Your task to perform on an android device: toggle translation in the chrome app Image 0: 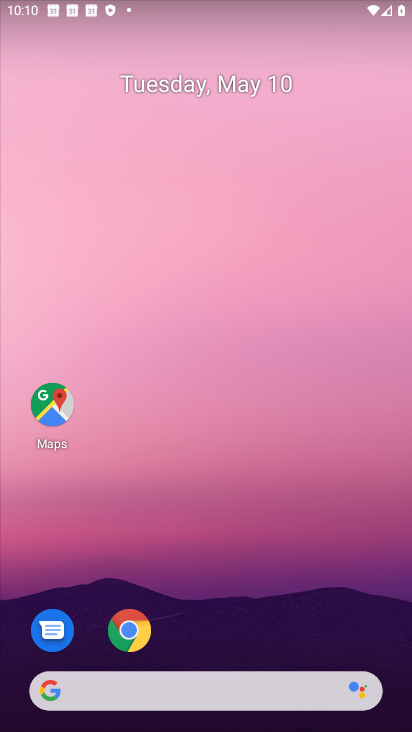
Step 0: click (132, 630)
Your task to perform on an android device: toggle translation in the chrome app Image 1: 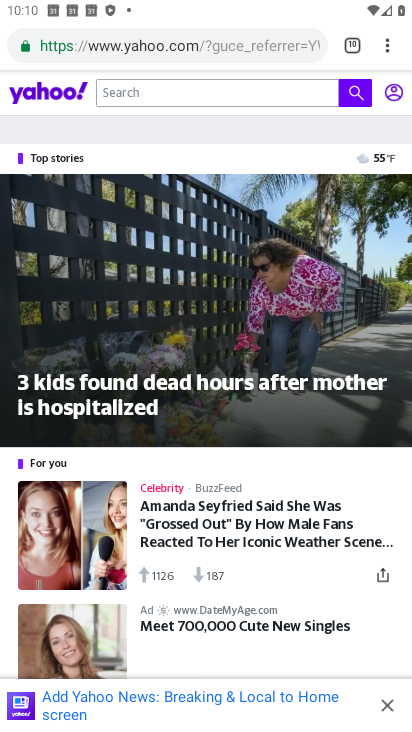
Step 1: click (384, 51)
Your task to perform on an android device: toggle translation in the chrome app Image 2: 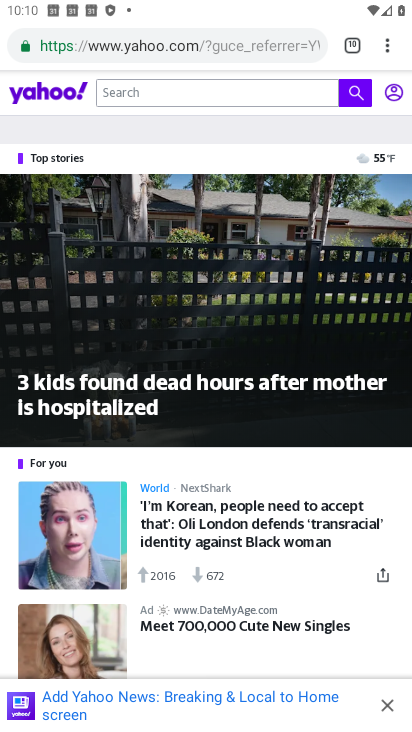
Step 2: click (392, 43)
Your task to perform on an android device: toggle translation in the chrome app Image 3: 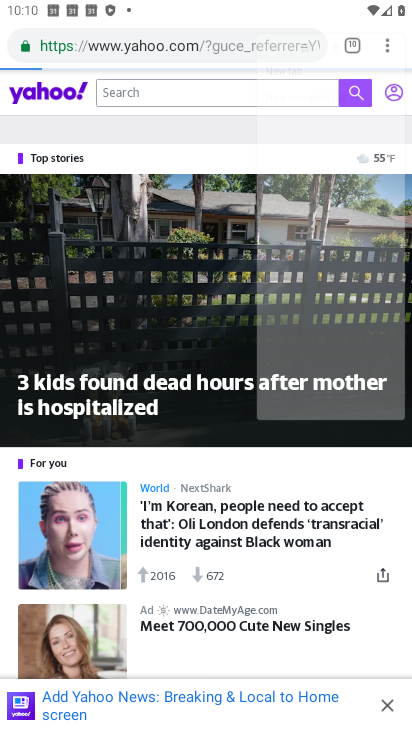
Step 3: click (392, 43)
Your task to perform on an android device: toggle translation in the chrome app Image 4: 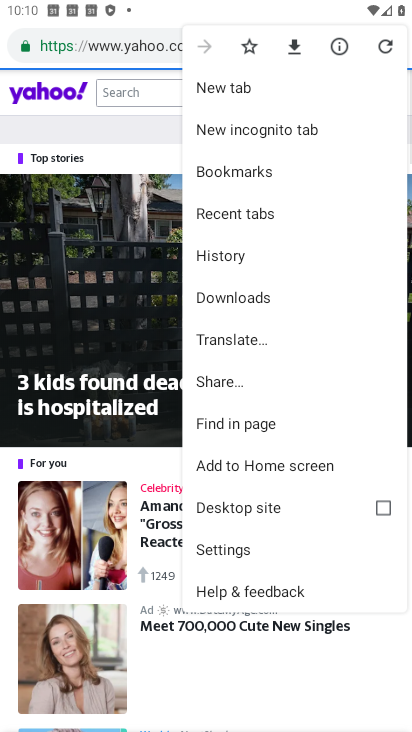
Step 4: click (392, 43)
Your task to perform on an android device: toggle translation in the chrome app Image 5: 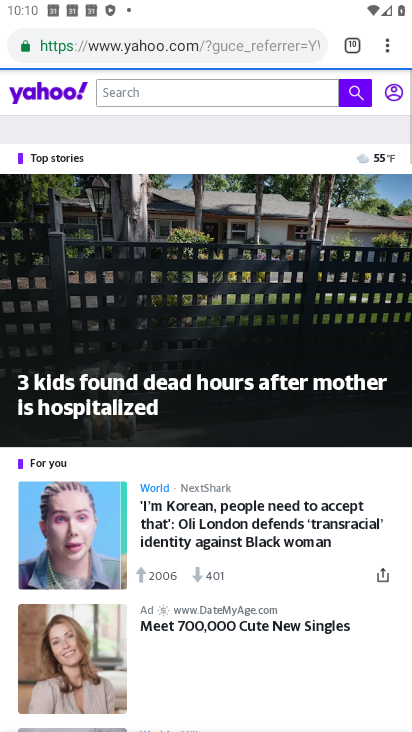
Step 5: click (392, 43)
Your task to perform on an android device: toggle translation in the chrome app Image 6: 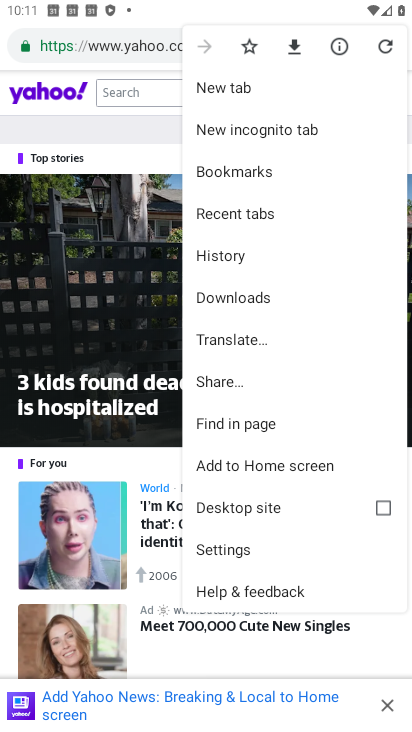
Step 6: click (250, 552)
Your task to perform on an android device: toggle translation in the chrome app Image 7: 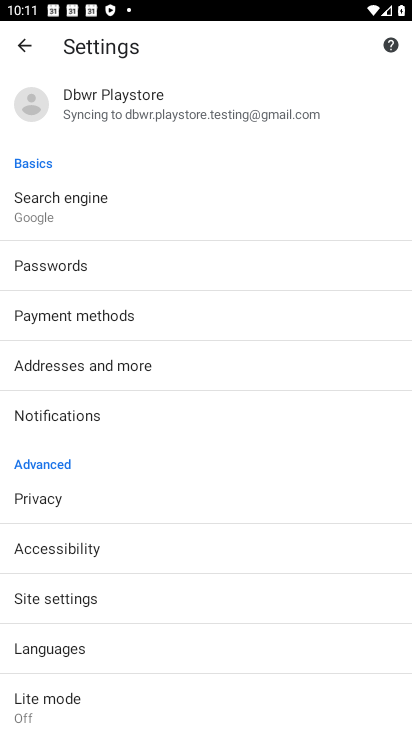
Step 7: click (97, 646)
Your task to perform on an android device: toggle translation in the chrome app Image 8: 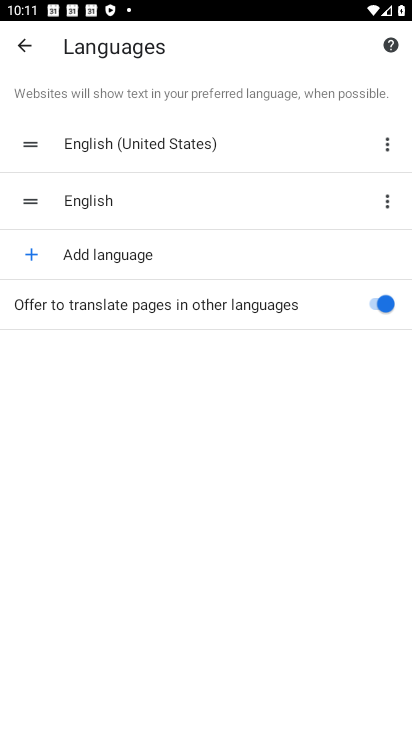
Step 8: click (383, 298)
Your task to perform on an android device: toggle translation in the chrome app Image 9: 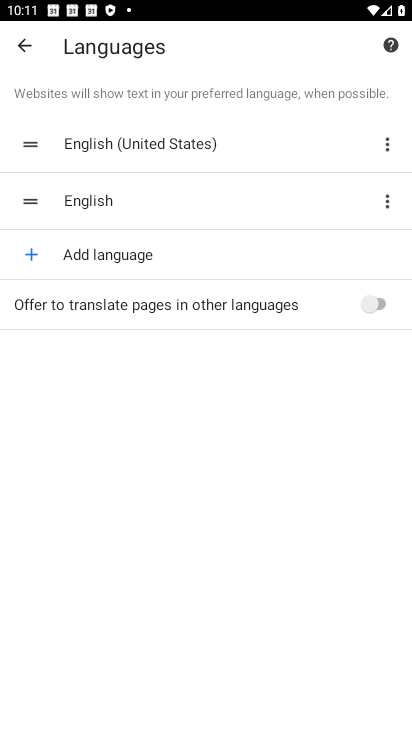
Step 9: task complete